Your task to perform on an android device: Open sound settings Image 0: 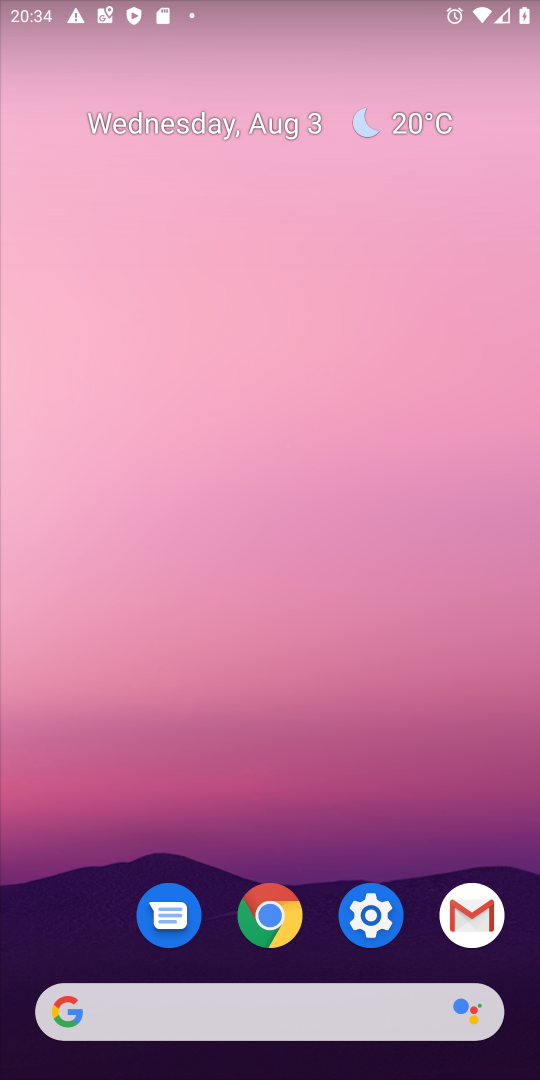
Step 0: press home button
Your task to perform on an android device: Open sound settings Image 1: 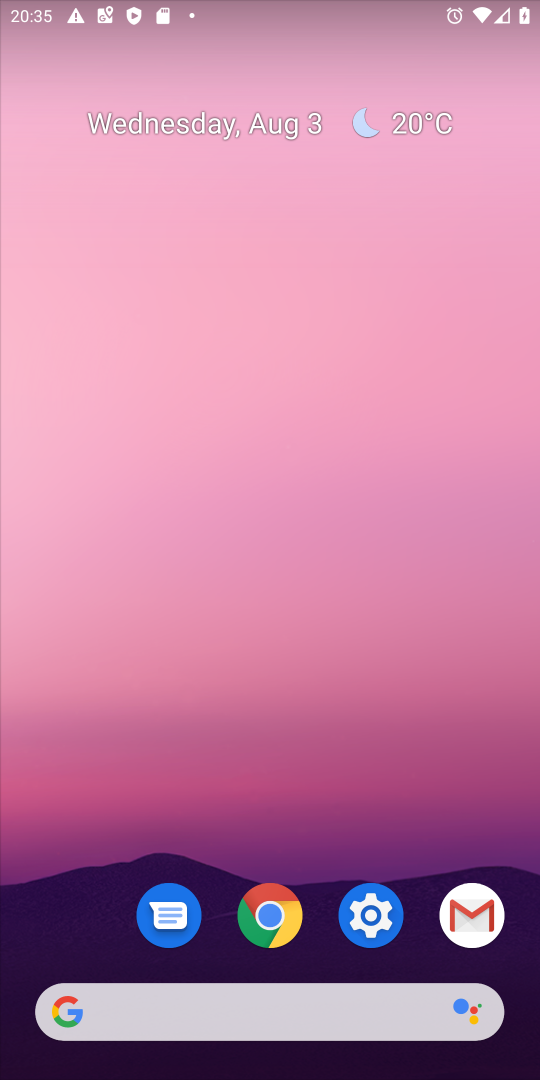
Step 1: drag from (298, 953) to (466, 253)
Your task to perform on an android device: Open sound settings Image 2: 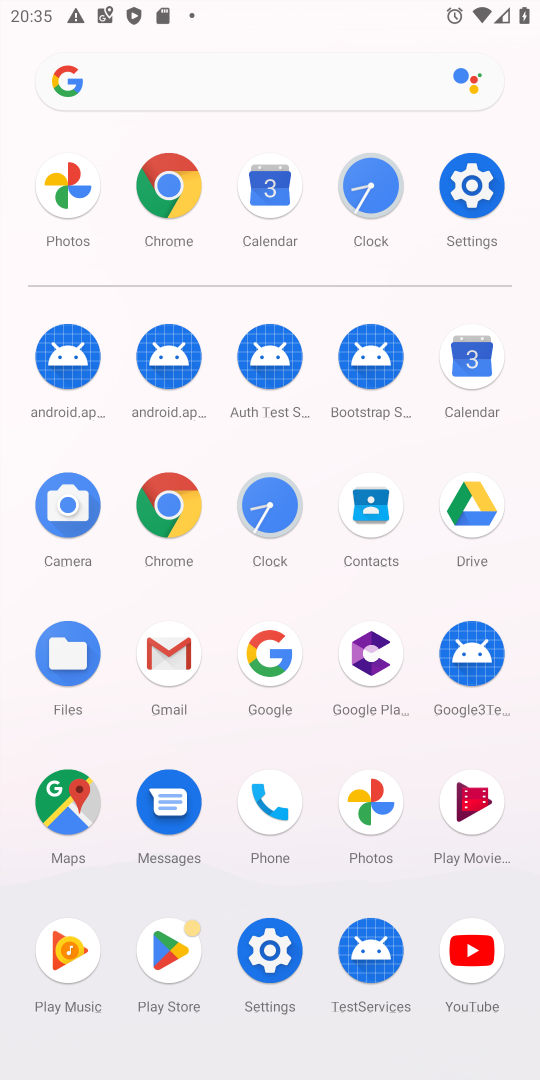
Step 2: click (470, 189)
Your task to perform on an android device: Open sound settings Image 3: 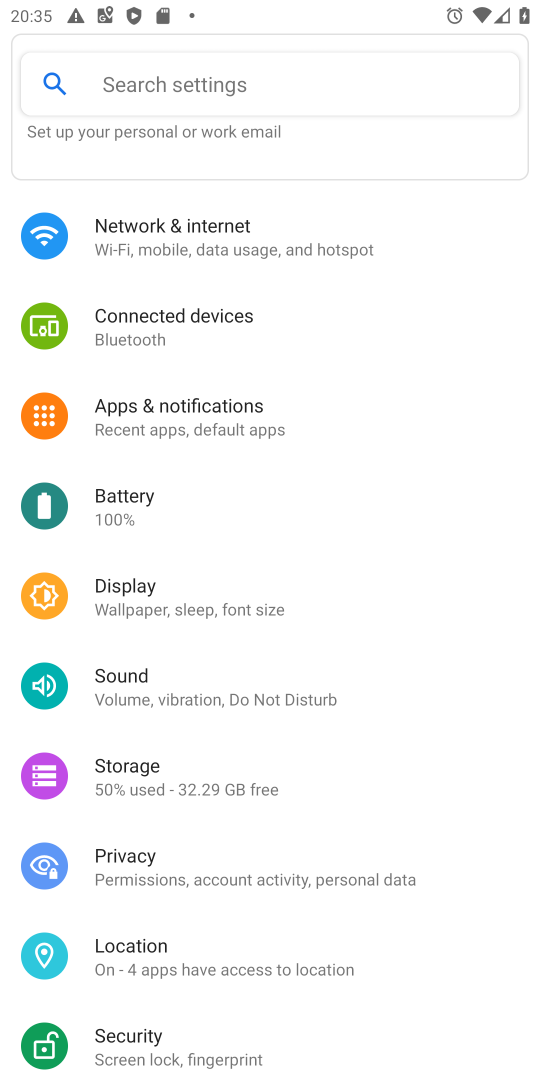
Step 3: click (178, 698)
Your task to perform on an android device: Open sound settings Image 4: 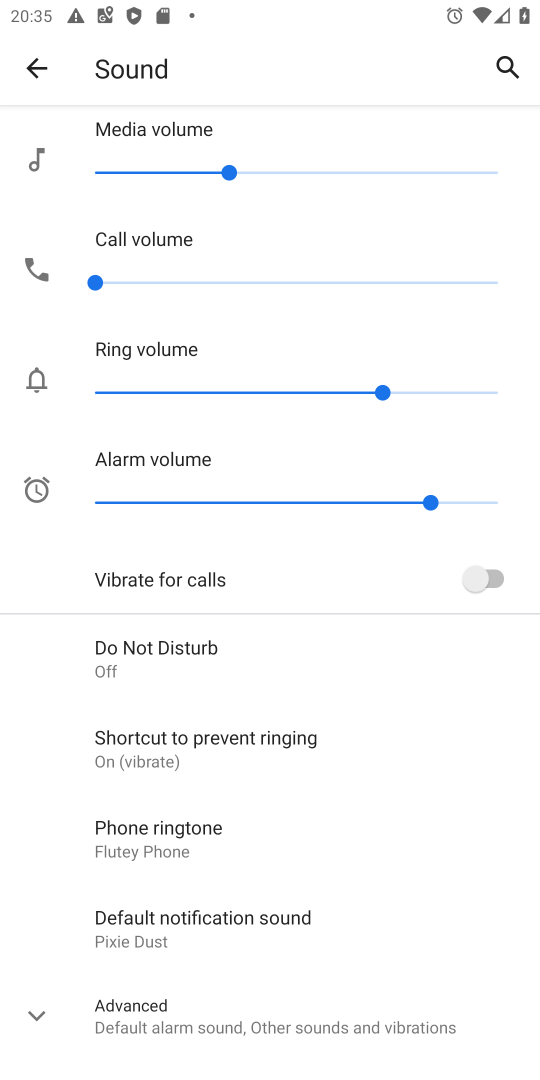
Step 4: task complete